Your task to perform on an android device: turn off improve location accuracy Image 0: 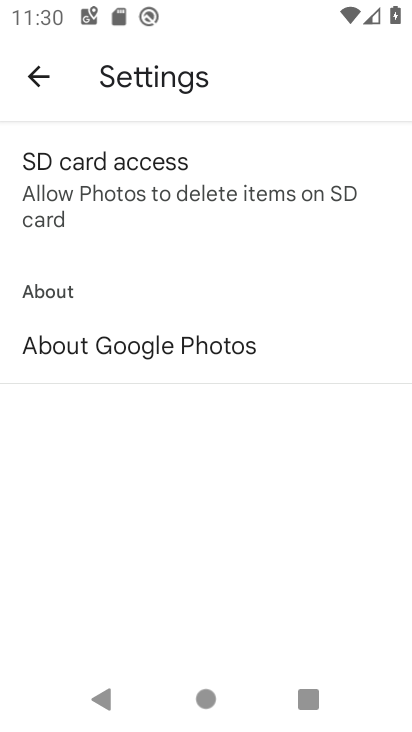
Step 0: press back button
Your task to perform on an android device: turn off improve location accuracy Image 1: 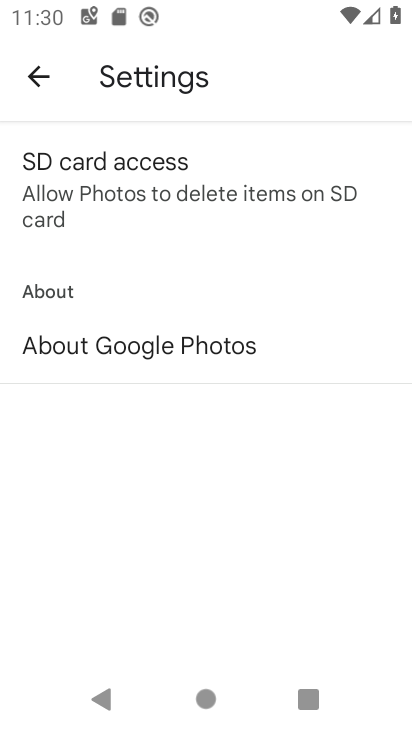
Step 1: press back button
Your task to perform on an android device: turn off improve location accuracy Image 2: 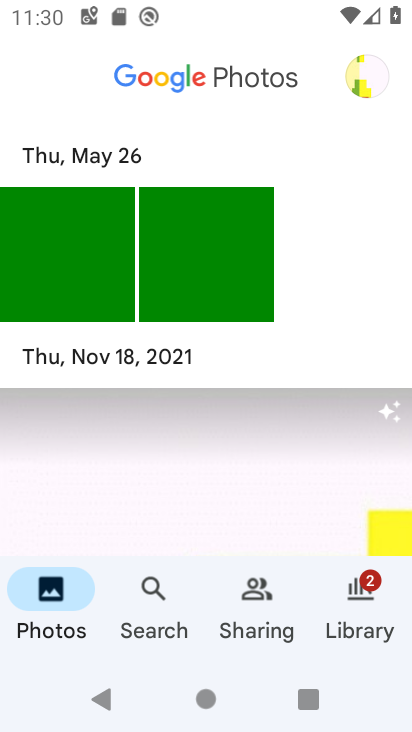
Step 2: press back button
Your task to perform on an android device: turn off improve location accuracy Image 3: 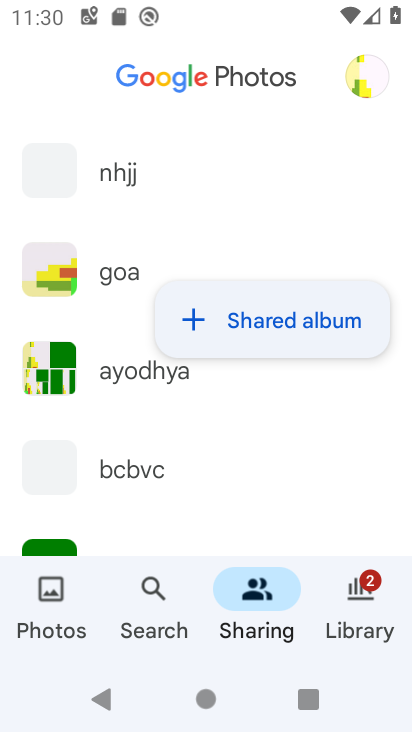
Step 3: press home button
Your task to perform on an android device: turn off improve location accuracy Image 4: 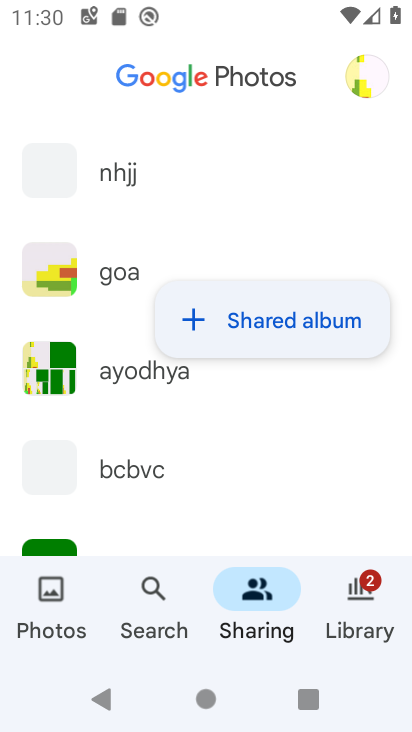
Step 4: press home button
Your task to perform on an android device: turn off improve location accuracy Image 5: 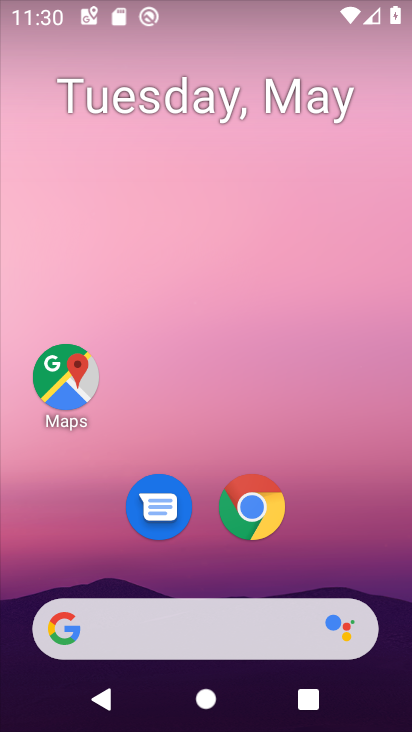
Step 5: drag from (269, 696) to (252, 278)
Your task to perform on an android device: turn off improve location accuracy Image 6: 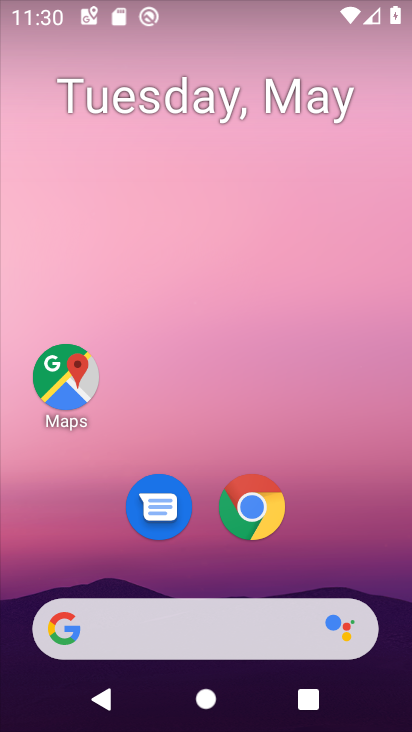
Step 6: drag from (267, 654) to (267, 220)
Your task to perform on an android device: turn off improve location accuracy Image 7: 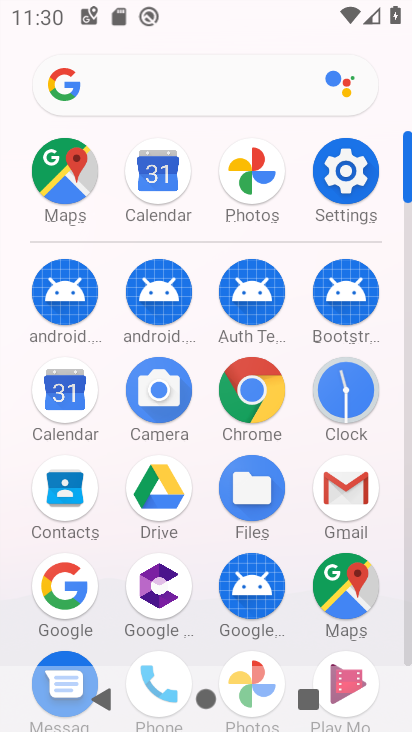
Step 7: click (352, 175)
Your task to perform on an android device: turn off improve location accuracy Image 8: 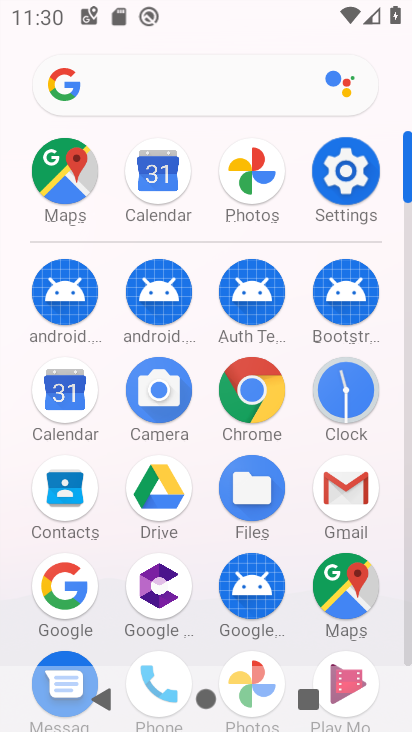
Step 8: click (351, 176)
Your task to perform on an android device: turn off improve location accuracy Image 9: 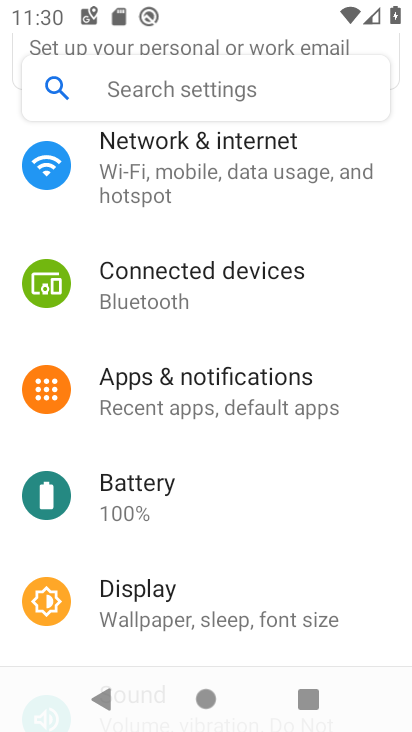
Step 9: drag from (143, 440) to (129, 309)
Your task to perform on an android device: turn off improve location accuracy Image 10: 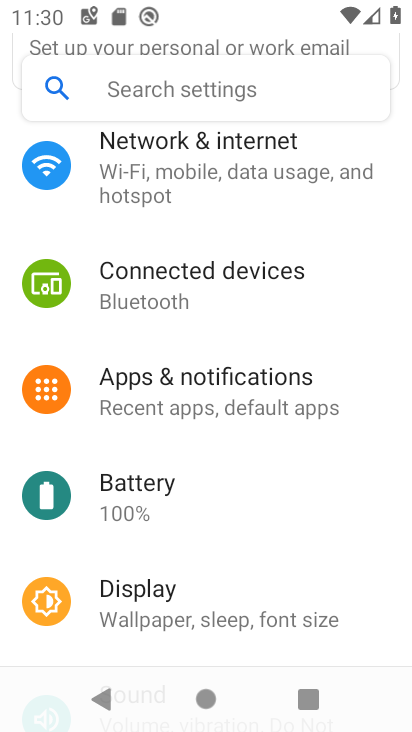
Step 10: drag from (179, 508) to (179, 245)
Your task to perform on an android device: turn off improve location accuracy Image 11: 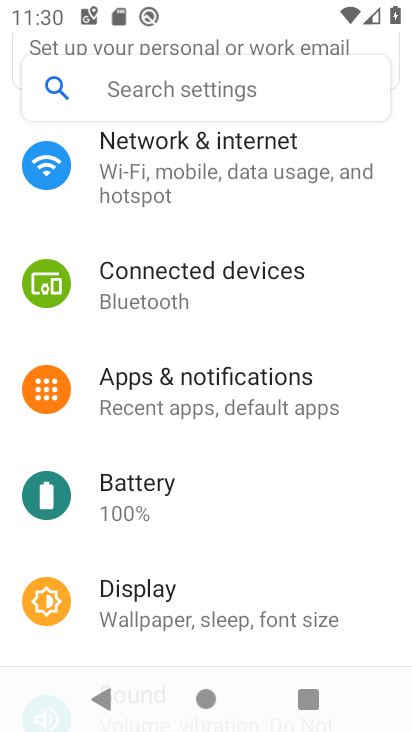
Step 11: drag from (163, 543) to (172, 200)
Your task to perform on an android device: turn off improve location accuracy Image 12: 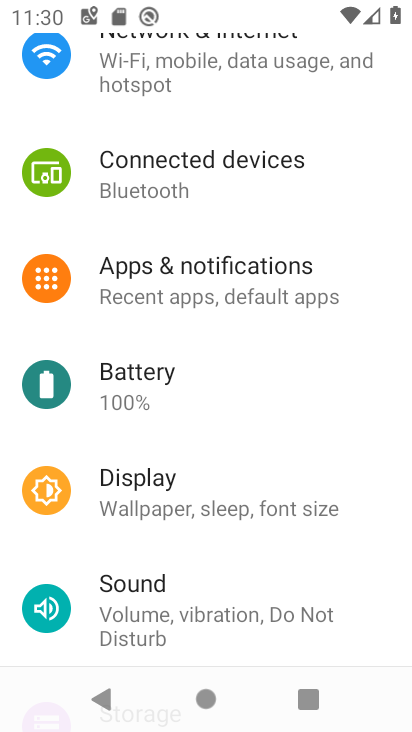
Step 12: drag from (184, 471) to (56, 30)
Your task to perform on an android device: turn off improve location accuracy Image 13: 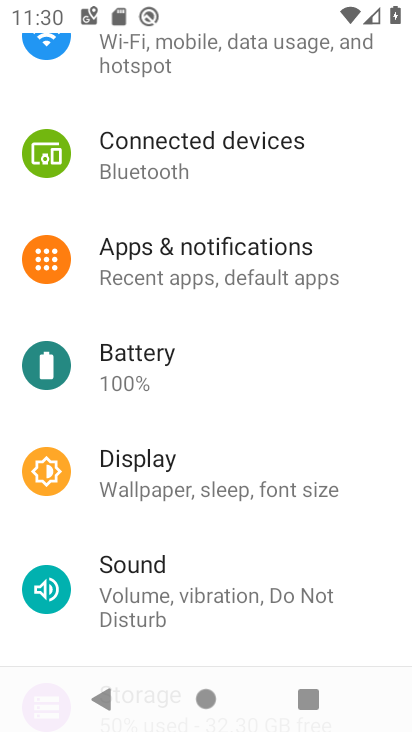
Step 13: drag from (157, 353) to (145, 150)
Your task to perform on an android device: turn off improve location accuracy Image 14: 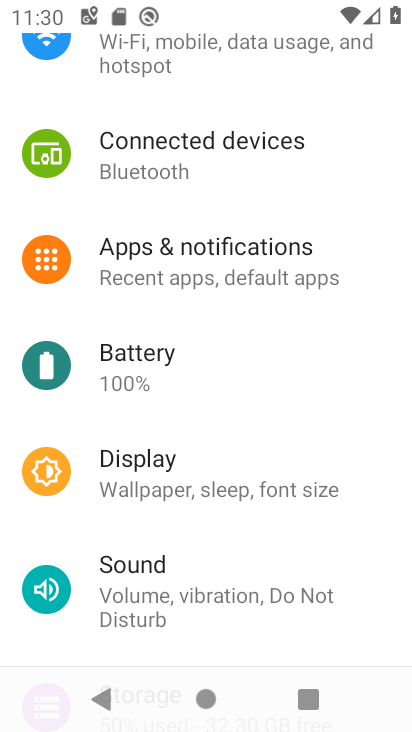
Step 14: drag from (180, 416) to (150, 91)
Your task to perform on an android device: turn off improve location accuracy Image 15: 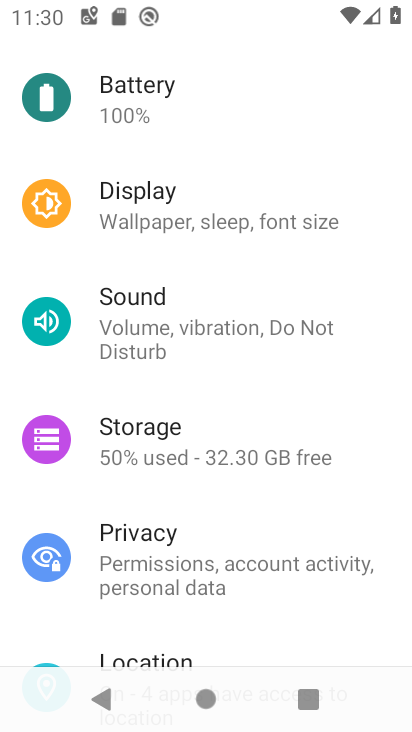
Step 15: click (113, 204)
Your task to perform on an android device: turn off improve location accuracy Image 16: 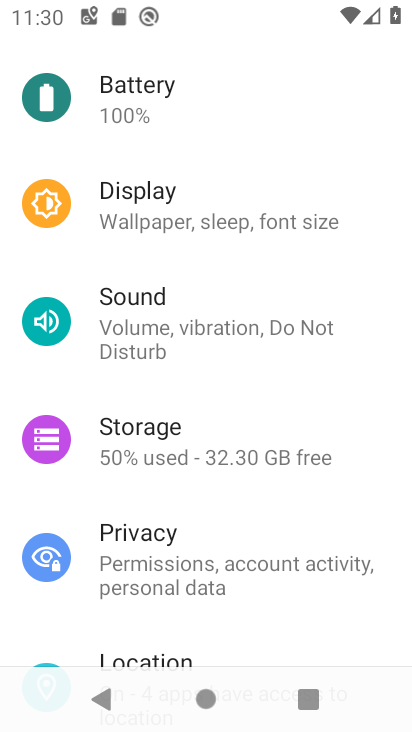
Step 16: drag from (176, 612) to (172, 178)
Your task to perform on an android device: turn off improve location accuracy Image 17: 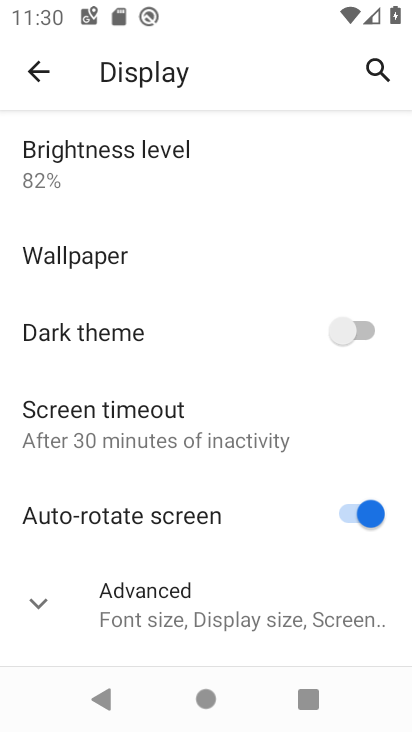
Step 17: drag from (159, 459) to (159, 243)
Your task to perform on an android device: turn off improve location accuracy Image 18: 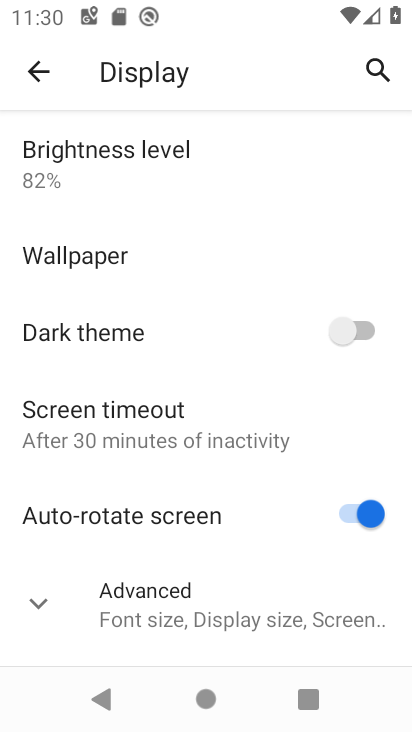
Step 18: click (30, 80)
Your task to perform on an android device: turn off improve location accuracy Image 19: 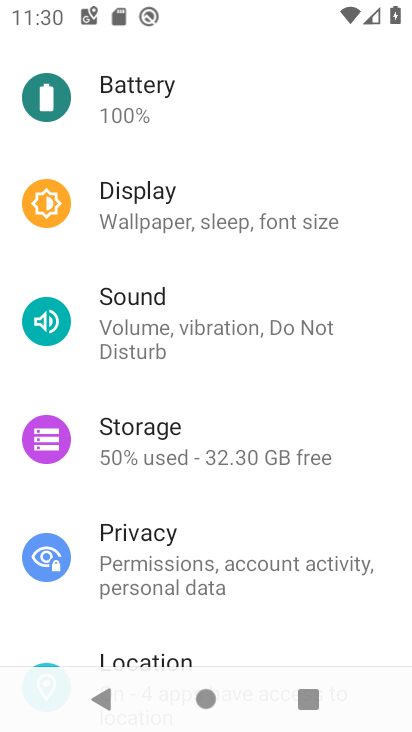
Step 19: drag from (238, 467) to (183, 90)
Your task to perform on an android device: turn off improve location accuracy Image 20: 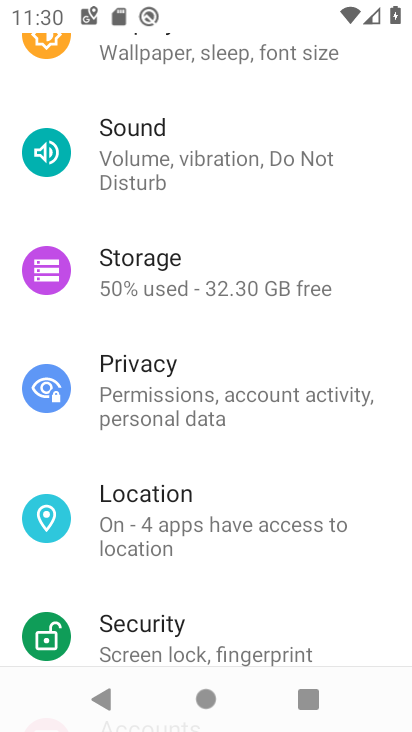
Step 20: drag from (214, 446) to (192, 107)
Your task to perform on an android device: turn off improve location accuracy Image 21: 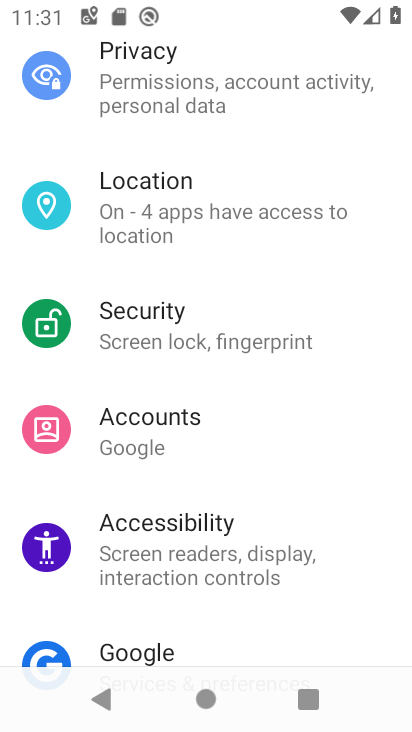
Step 21: click (165, 205)
Your task to perform on an android device: turn off improve location accuracy Image 22: 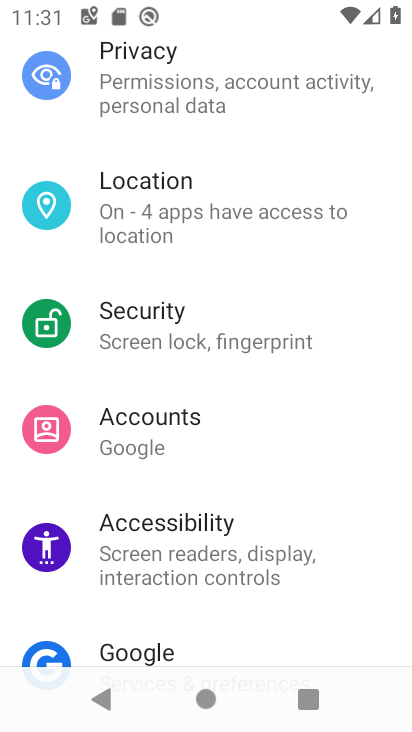
Step 22: click (173, 204)
Your task to perform on an android device: turn off improve location accuracy Image 23: 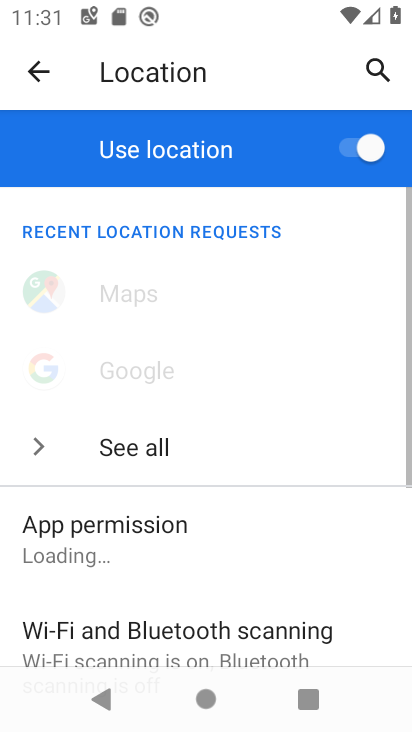
Step 23: click (175, 200)
Your task to perform on an android device: turn off improve location accuracy Image 24: 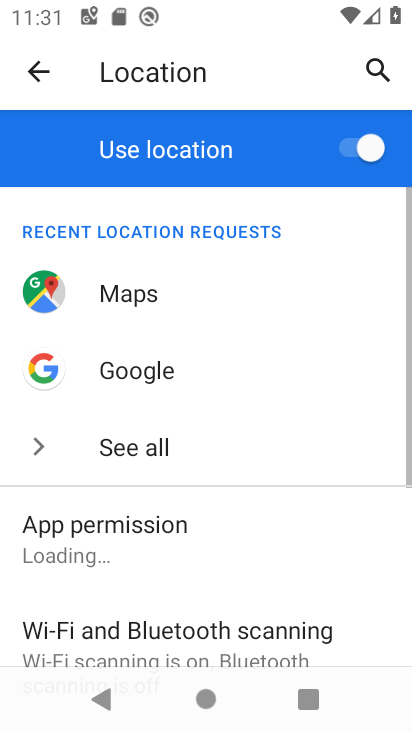
Step 24: click (175, 200)
Your task to perform on an android device: turn off improve location accuracy Image 25: 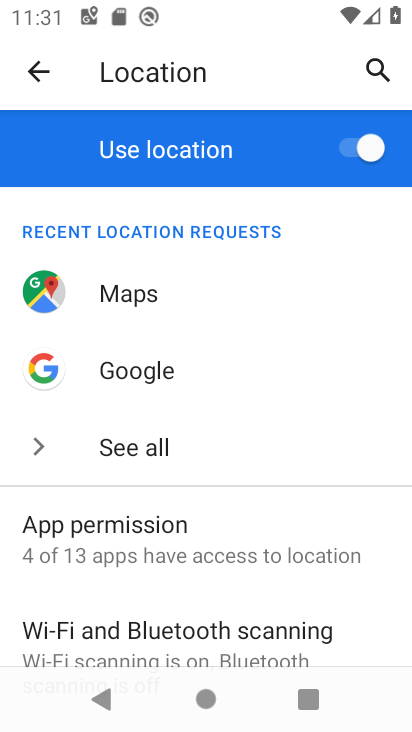
Step 25: drag from (177, 600) to (177, 244)
Your task to perform on an android device: turn off improve location accuracy Image 26: 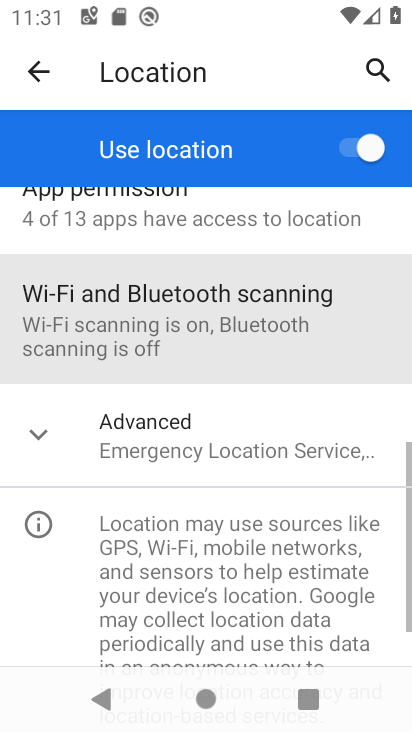
Step 26: drag from (258, 518) to (255, 285)
Your task to perform on an android device: turn off improve location accuracy Image 27: 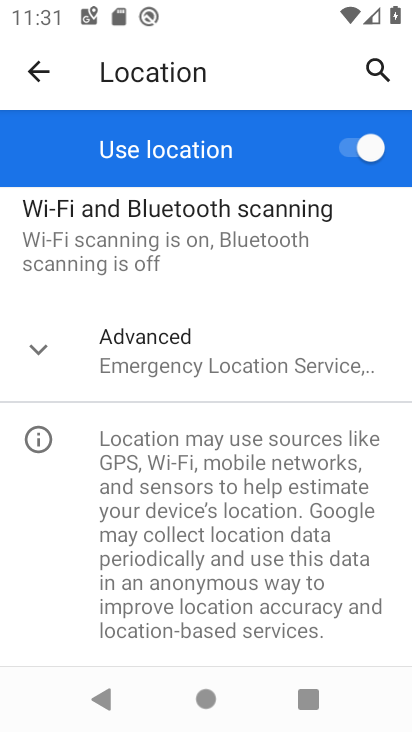
Step 27: click (185, 373)
Your task to perform on an android device: turn off improve location accuracy Image 28: 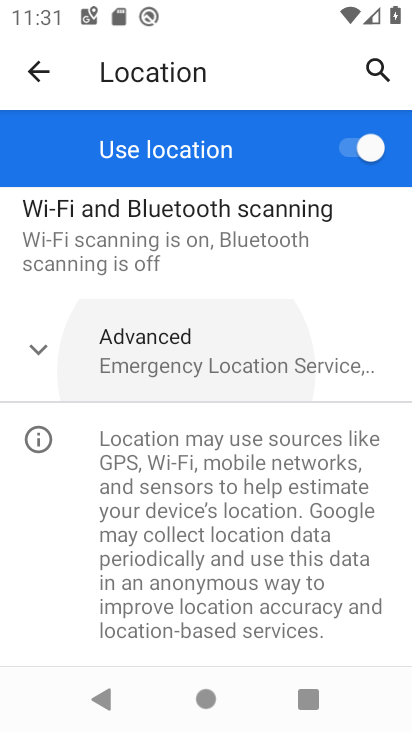
Step 28: click (185, 373)
Your task to perform on an android device: turn off improve location accuracy Image 29: 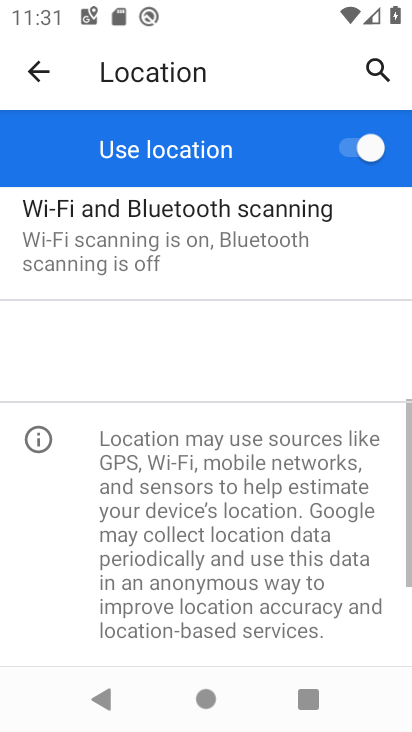
Step 29: click (184, 373)
Your task to perform on an android device: turn off improve location accuracy Image 30: 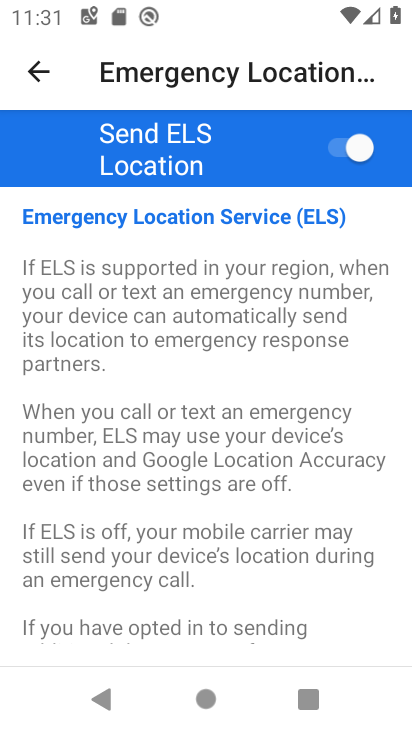
Step 30: click (35, 62)
Your task to perform on an android device: turn off improve location accuracy Image 31: 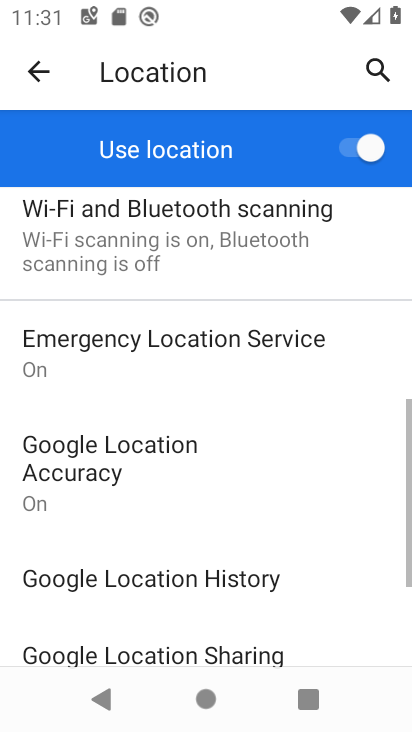
Step 31: drag from (170, 525) to (182, 234)
Your task to perform on an android device: turn off improve location accuracy Image 32: 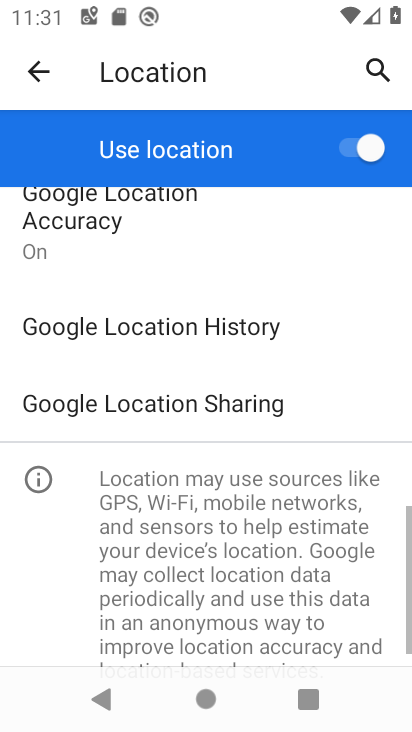
Step 32: drag from (207, 518) to (220, 270)
Your task to perform on an android device: turn off improve location accuracy Image 33: 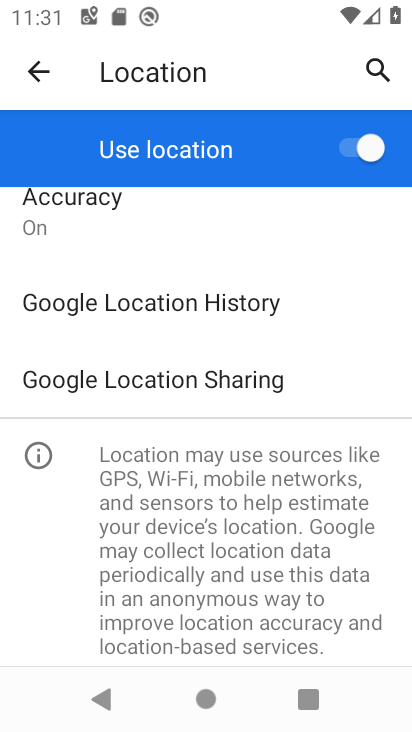
Step 33: drag from (119, 264) to (205, 520)
Your task to perform on an android device: turn off improve location accuracy Image 34: 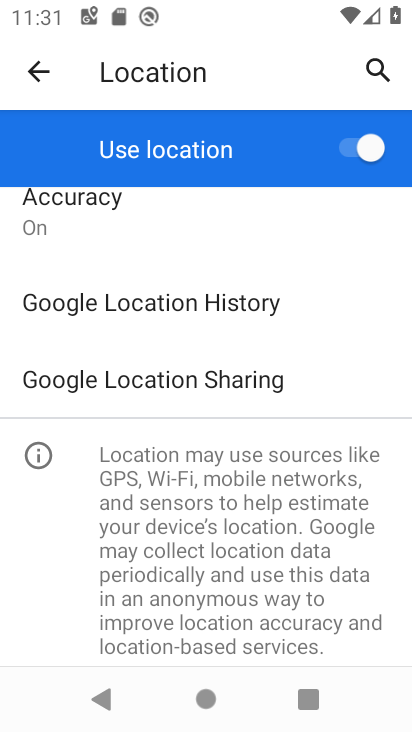
Step 34: click (59, 199)
Your task to perform on an android device: turn off improve location accuracy Image 35: 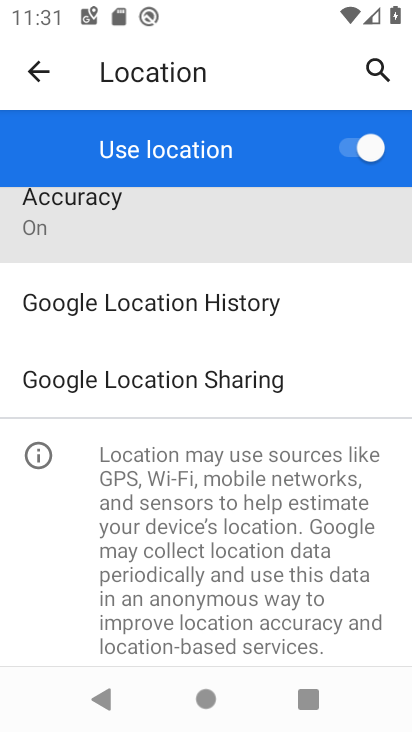
Step 35: click (59, 199)
Your task to perform on an android device: turn off improve location accuracy Image 36: 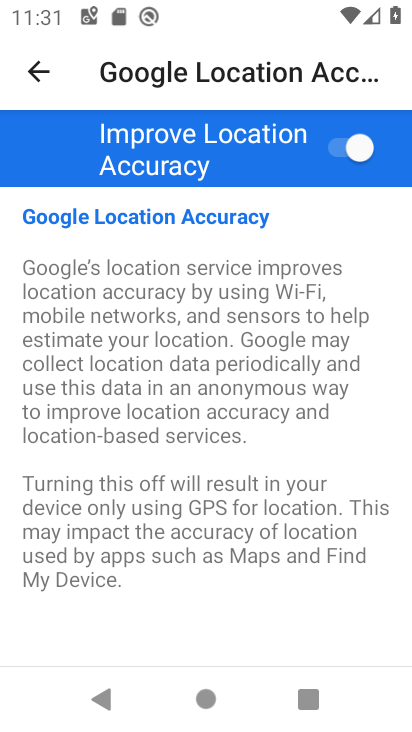
Step 36: task complete